Your task to perform on an android device: Go to wifi settings Image 0: 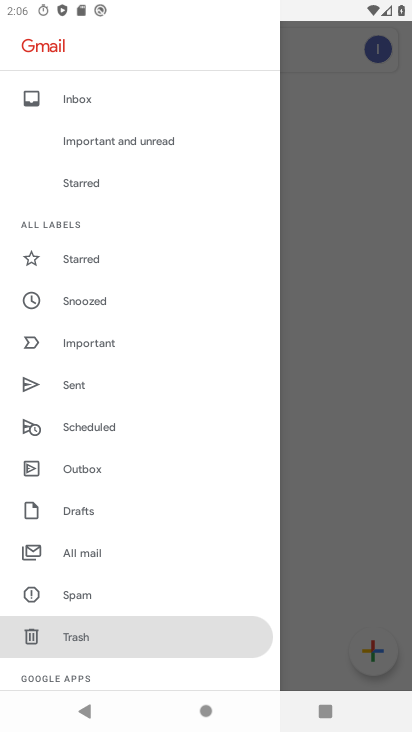
Step 0: press home button
Your task to perform on an android device: Go to wifi settings Image 1: 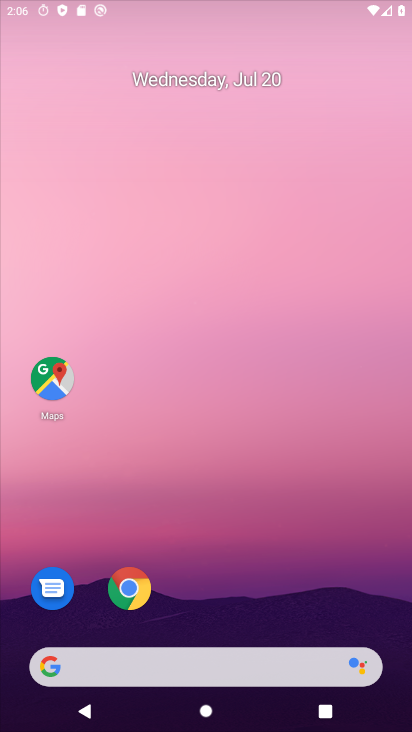
Step 1: drag from (305, 632) to (326, 1)
Your task to perform on an android device: Go to wifi settings Image 2: 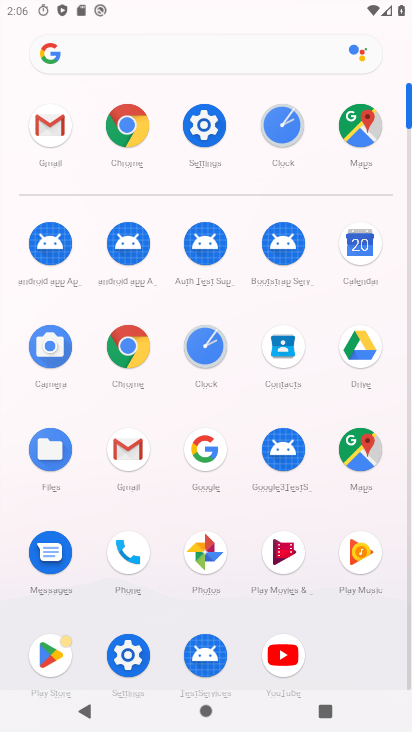
Step 2: click (210, 121)
Your task to perform on an android device: Go to wifi settings Image 3: 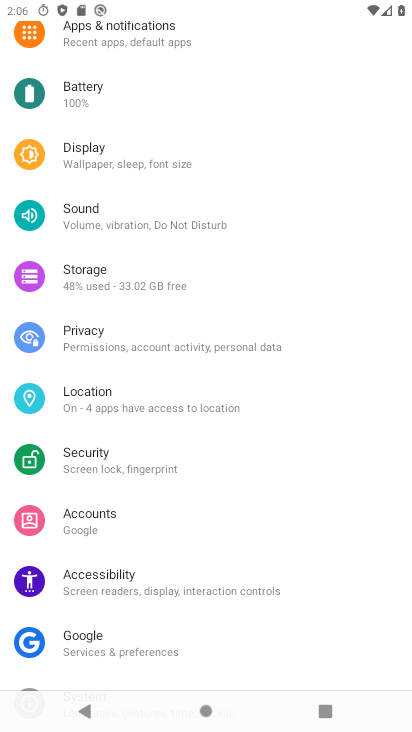
Step 3: drag from (171, 168) to (136, 655)
Your task to perform on an android device: Go to wifi settings Image 4: 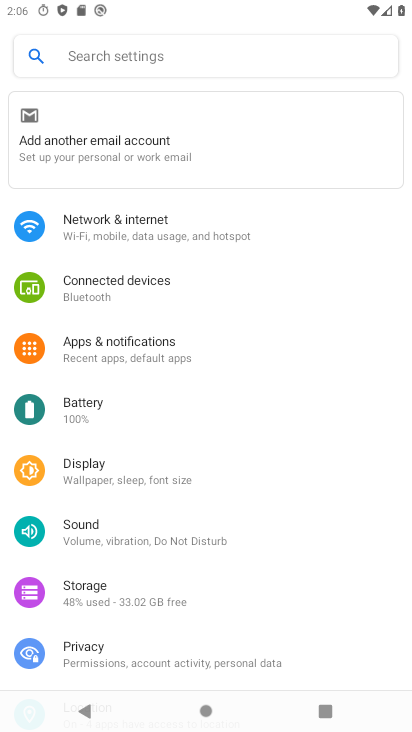
Step 4: click (174, 232)
Your task to perform on an android device: Go to wifi settings Image 5: 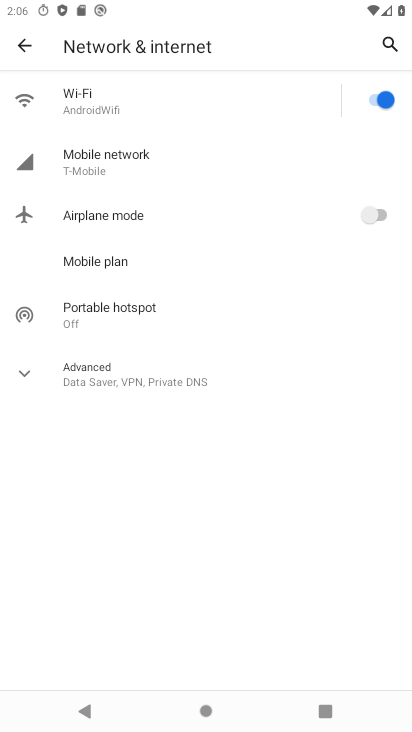
Step 5: task complete